Your task to perform on an android device: check battery use Image 0: 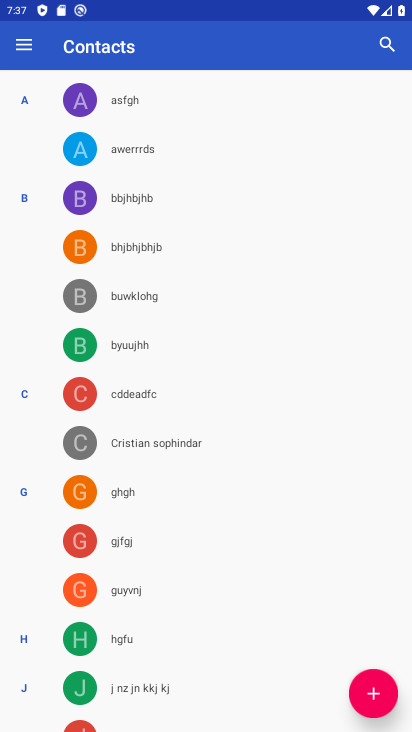
Step 0: press home button
Your task to perform on an android device: check battery use Image 1: 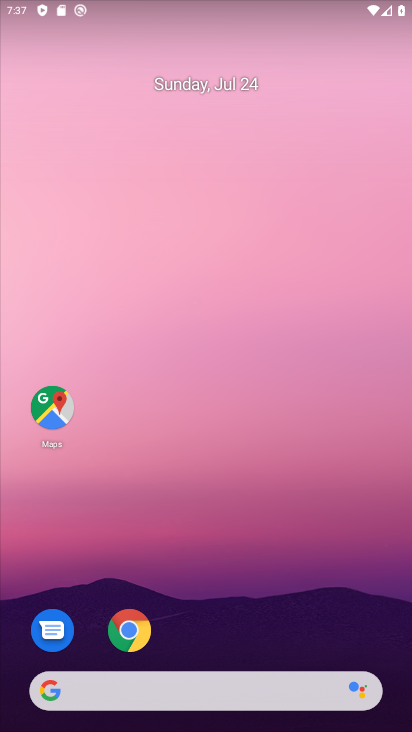
Step 1: drag from (222, 541) to (182, 21)
Your task to perform on an android device: check battery use Image 2: 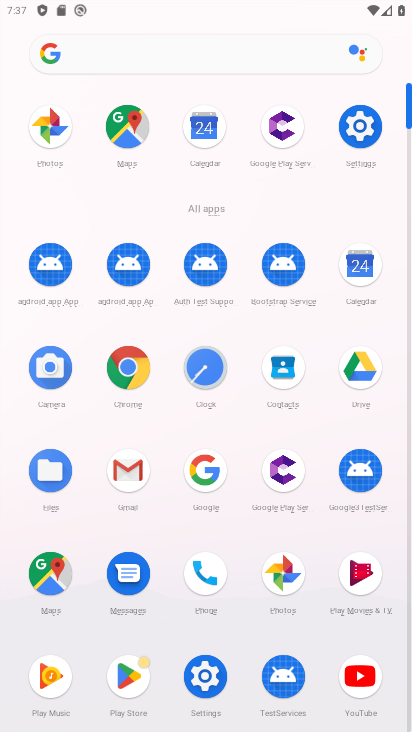
Step 2: click (342, 115)
Your task to perform on an android device: check battery use Image 3: 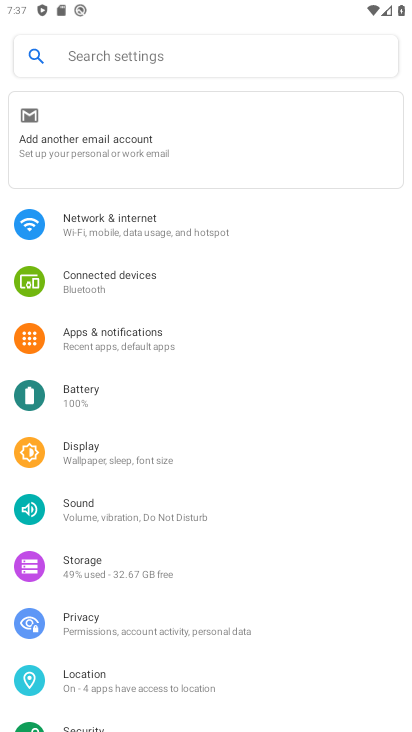
Step 3: click (138, 398)
Your task to perform on an android device: check battery use Image 4: 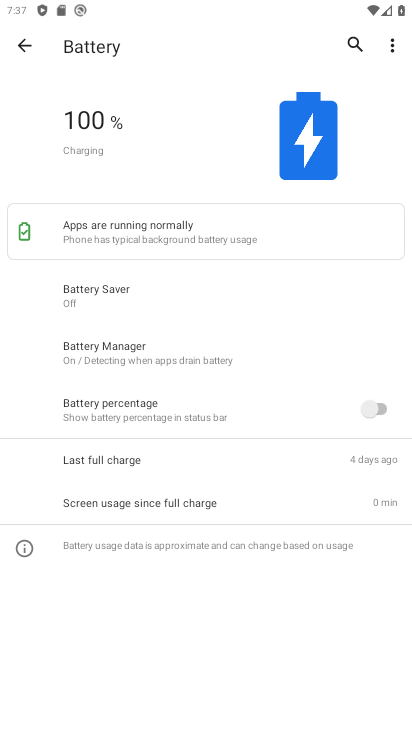
Step 4: click (398, 44)
Your task to perform on an android device: check battery use Image 5: 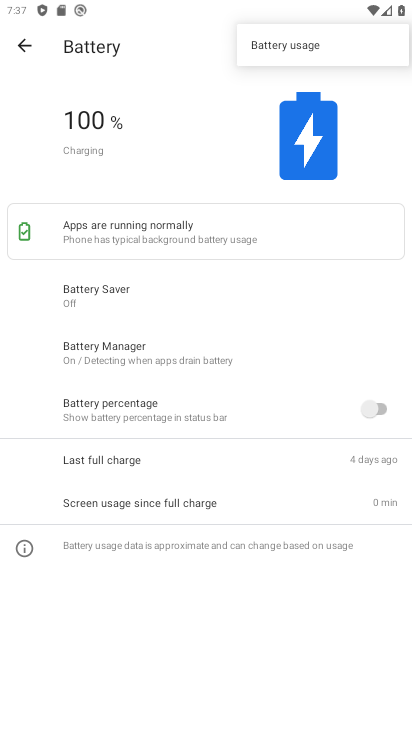
Step 5: click (345, 44)
Your task to perform on an android device: check battery use Image 6: 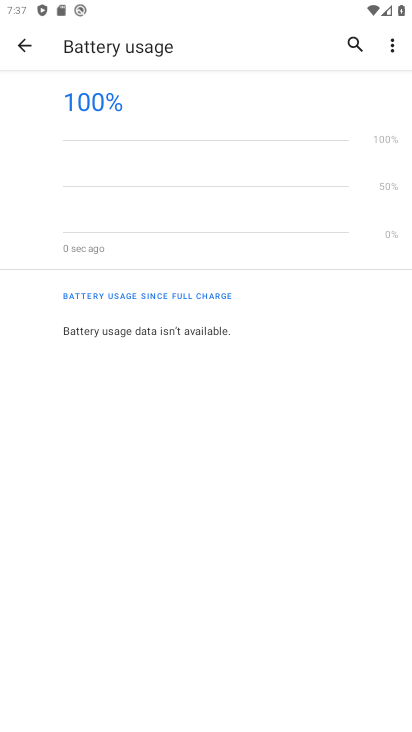
Step 6: task complete